Your task to perform on an android device: open a new tab in the chrome app Image 0: 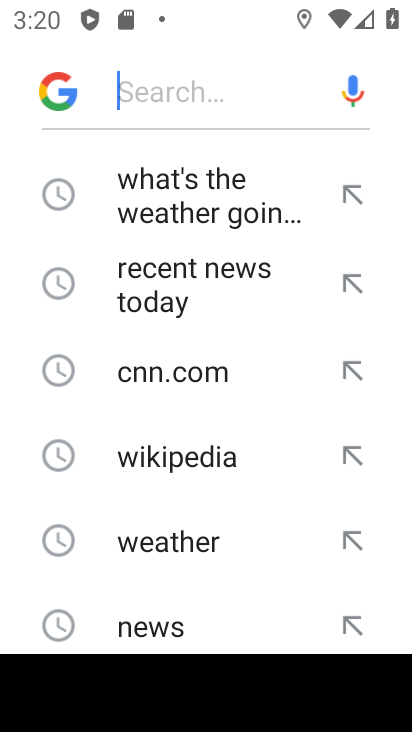
Step 0: press home button
Your task to perform on an android device: open a new tab in the chrome app Image 1: 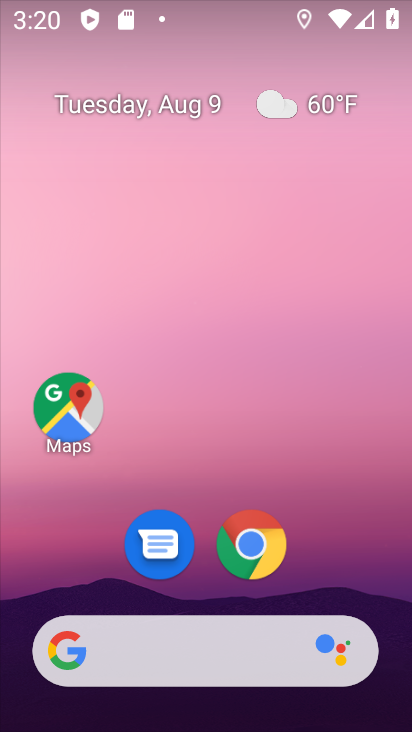
Step 1: click (244, 537)
Your task to perform on an android device: open a new tab in the chrome app Image 2: 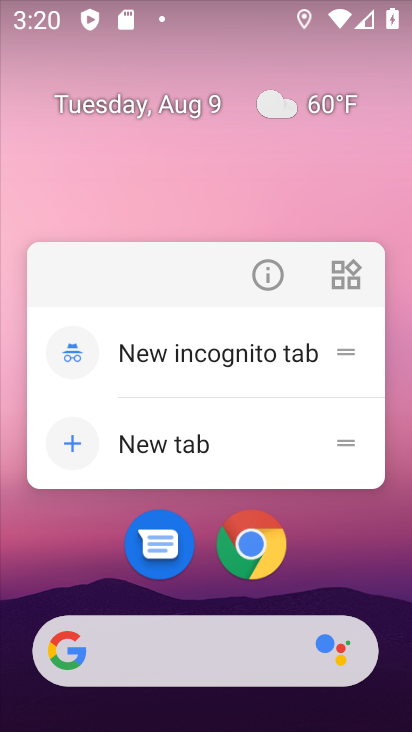
Step 2: click (229, 533)
Your task to perform on an android device: open a new tab in the chrome app Image 3: 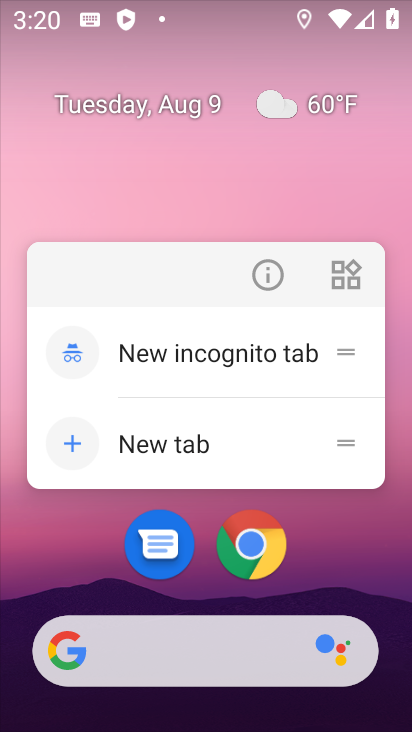
Step 3: click (234, 515)
Your task to perform on an android device: open a new tab in the chrome app Image 4: 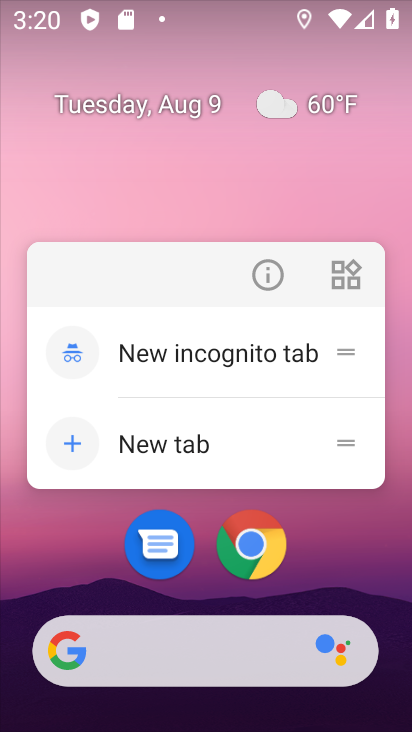
Step 4: click (234, 515)
Your task to perform on an android device: open a new tab in the chrome app Image 5: 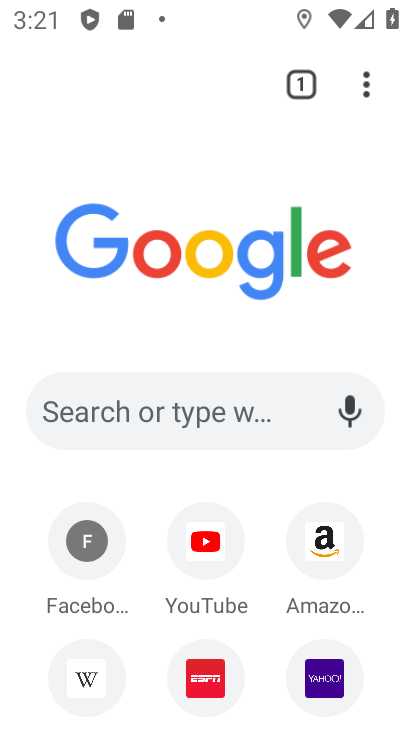
Step 5: click (373, 87)
Your task to perform on an android device: open a new tab in the chrome app Image 6: 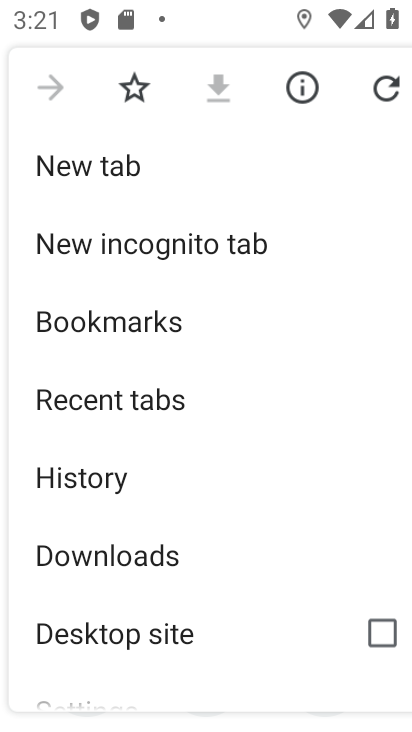
Step 6: click (179, 168)
Your task to perform on an android device: open a new tab in the chrome app Image 7: 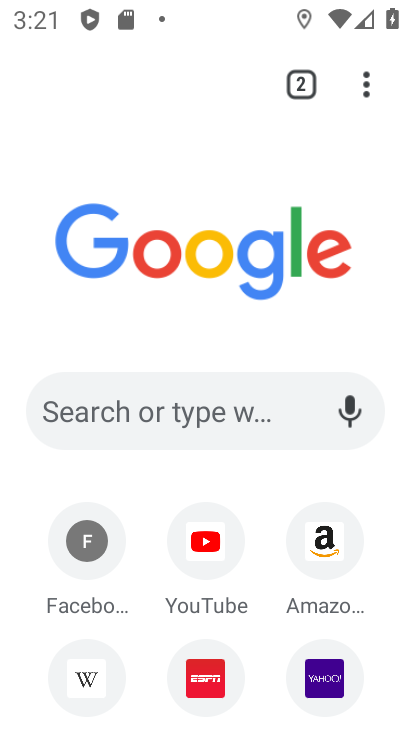
Step 7: task complete